Your task to perform on an android device: Search for Mexican restaurants on Maps Image 0: 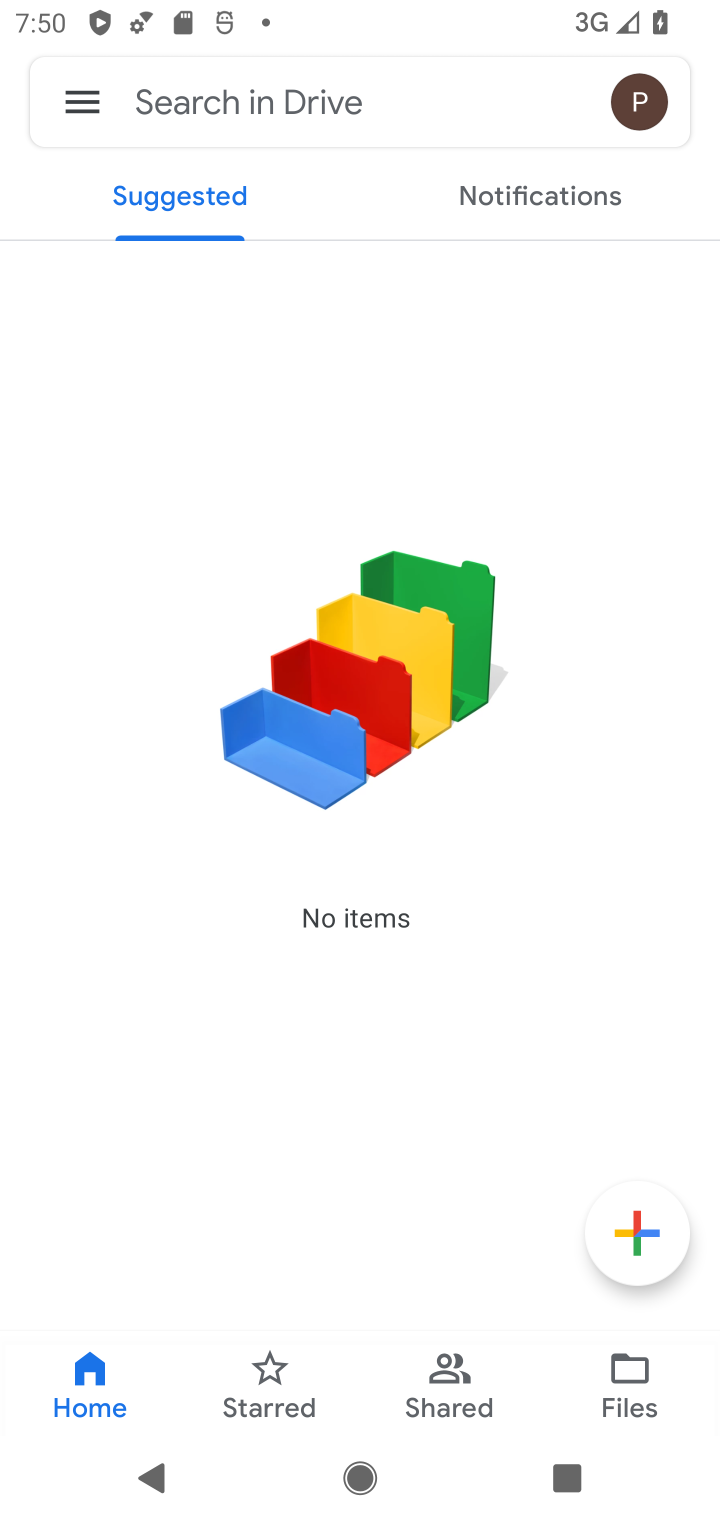
Step 0: press home button
Your task to perform on an android device: Search for Mexican restaurants on Maps Image 1: 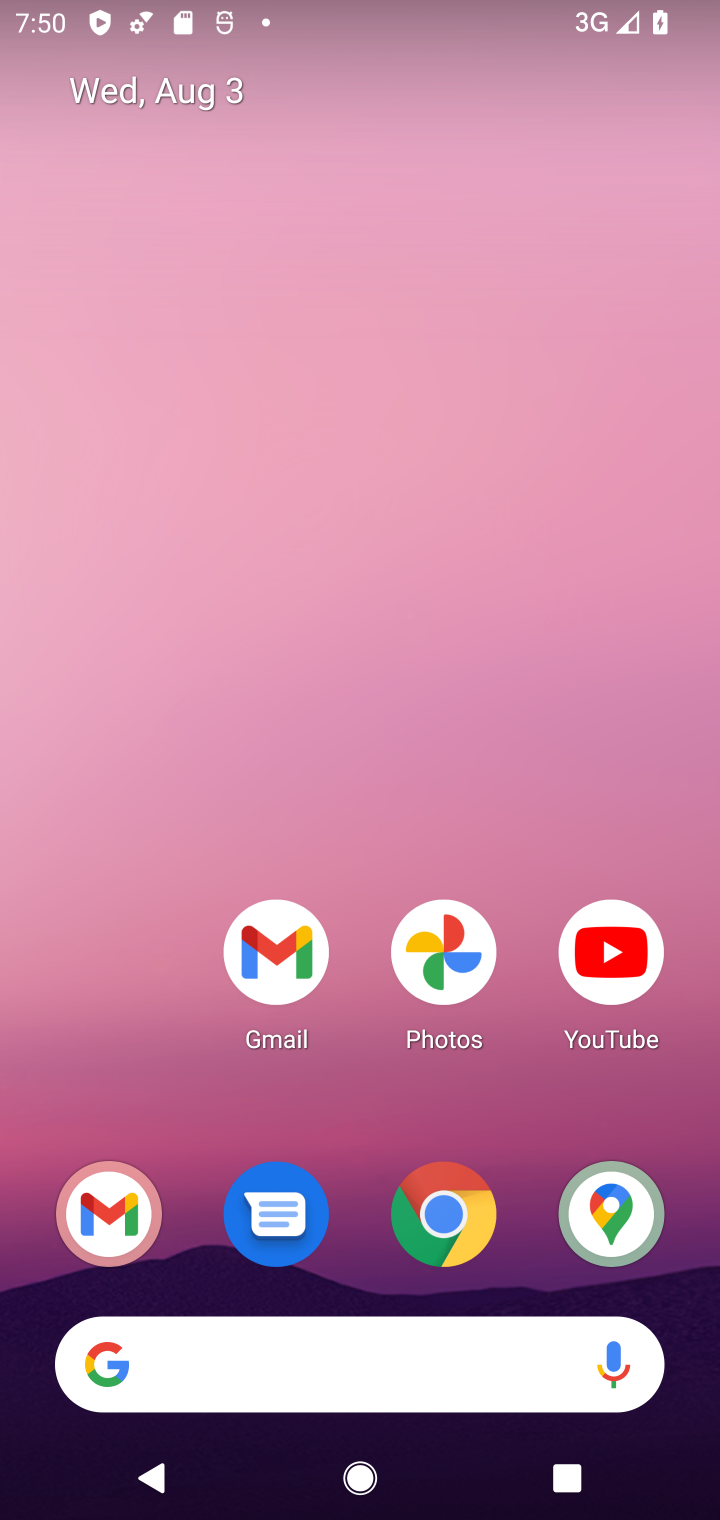
Step 1: drag from (136, 1084) to (253, 60)
Your task to perform on an android device: Search for Mexican restaurants on Maps Image 2: 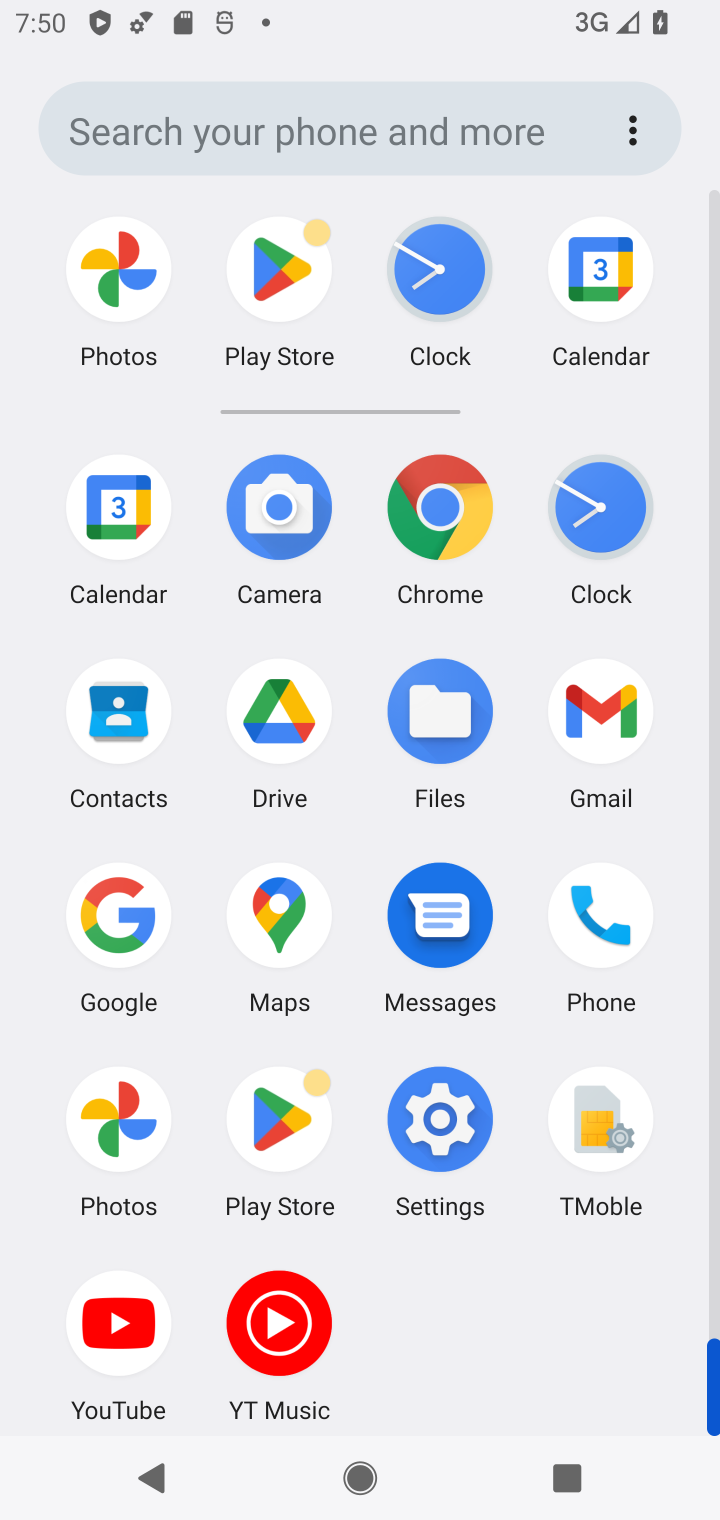
Step 2: click (292, 920)
Your task to perform on an android device: Search for Mexican restaurants on Maps Image 3: 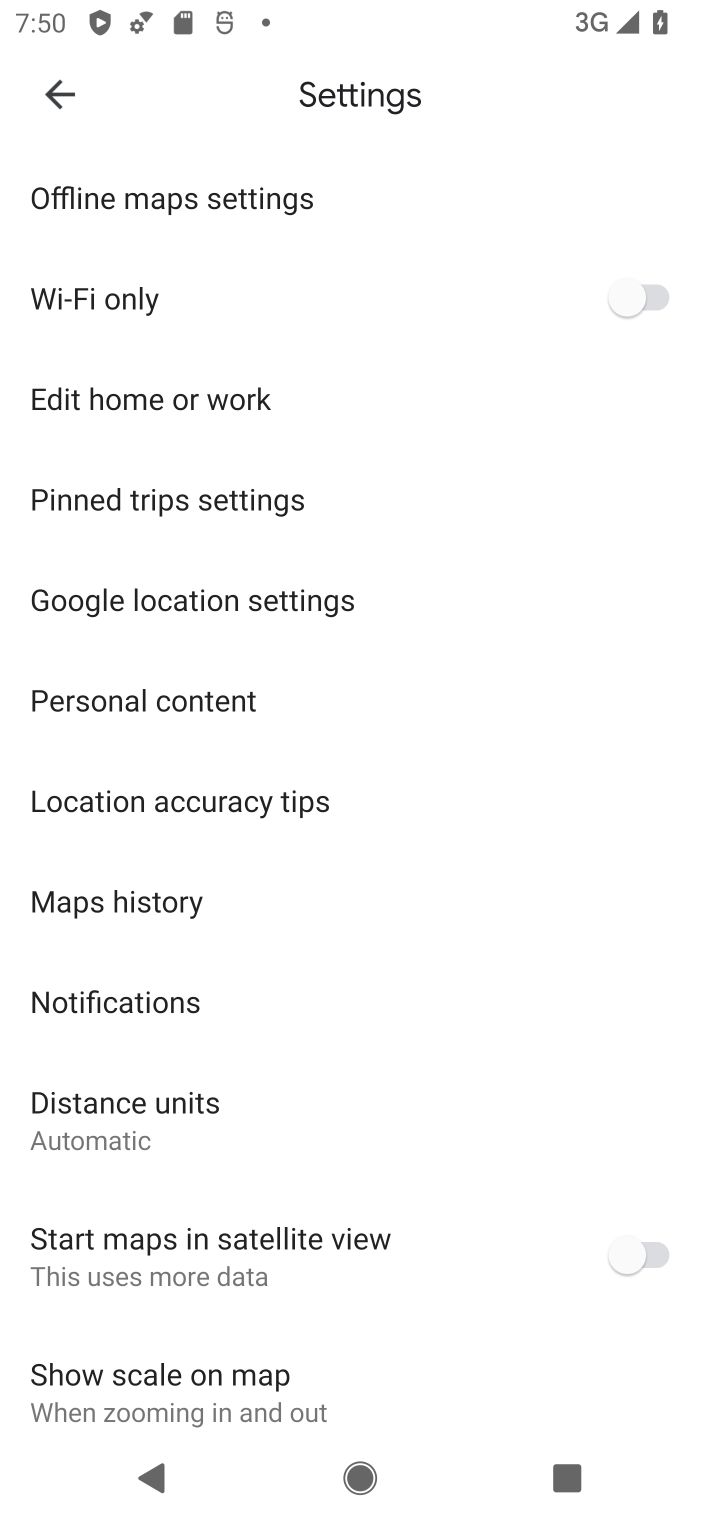
Step 3: click (74, 97)
Your task to perform on an android device: Search for Mexican restaurants on Maps Image 4: 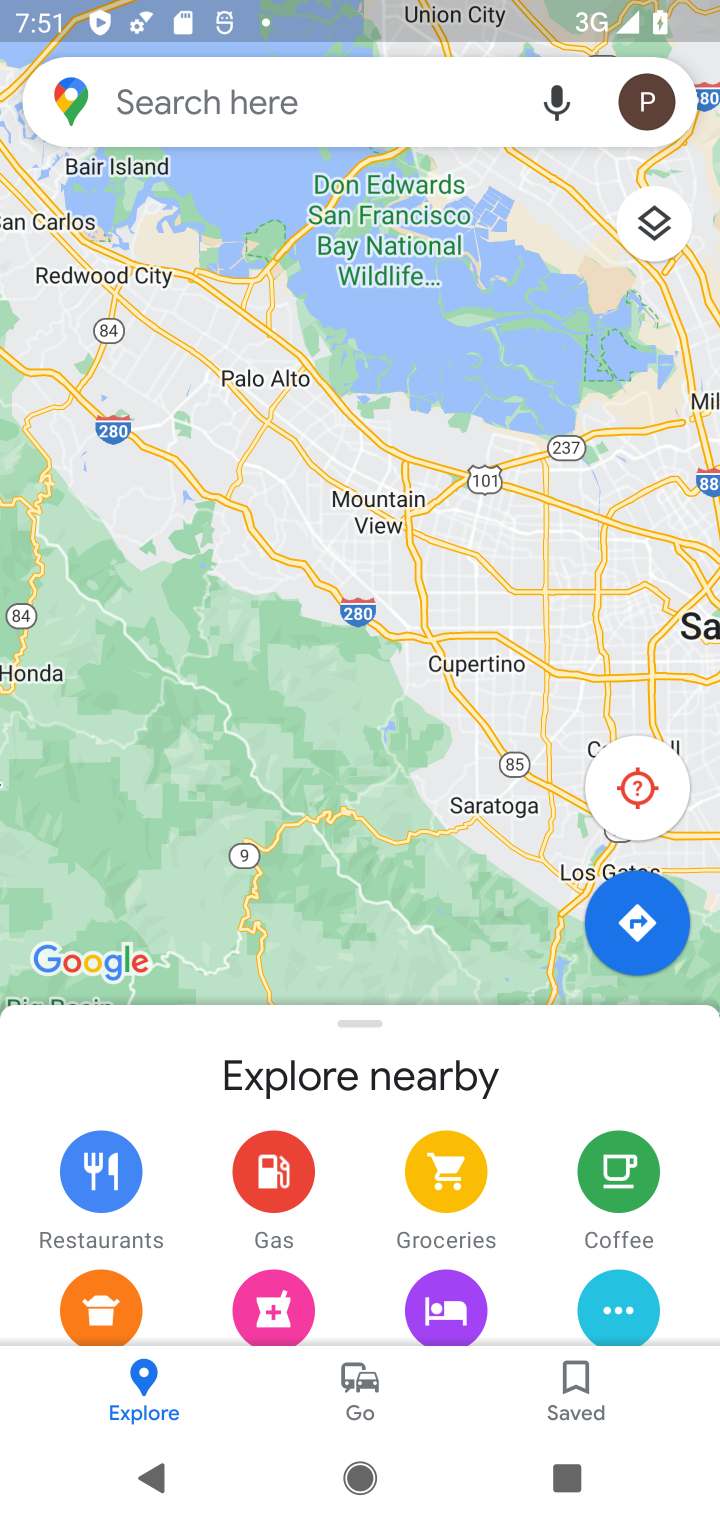
Step 4: click (239, 83)
Your task to perform on an android device: Search for Mexican restaurants on Maps Image 5: 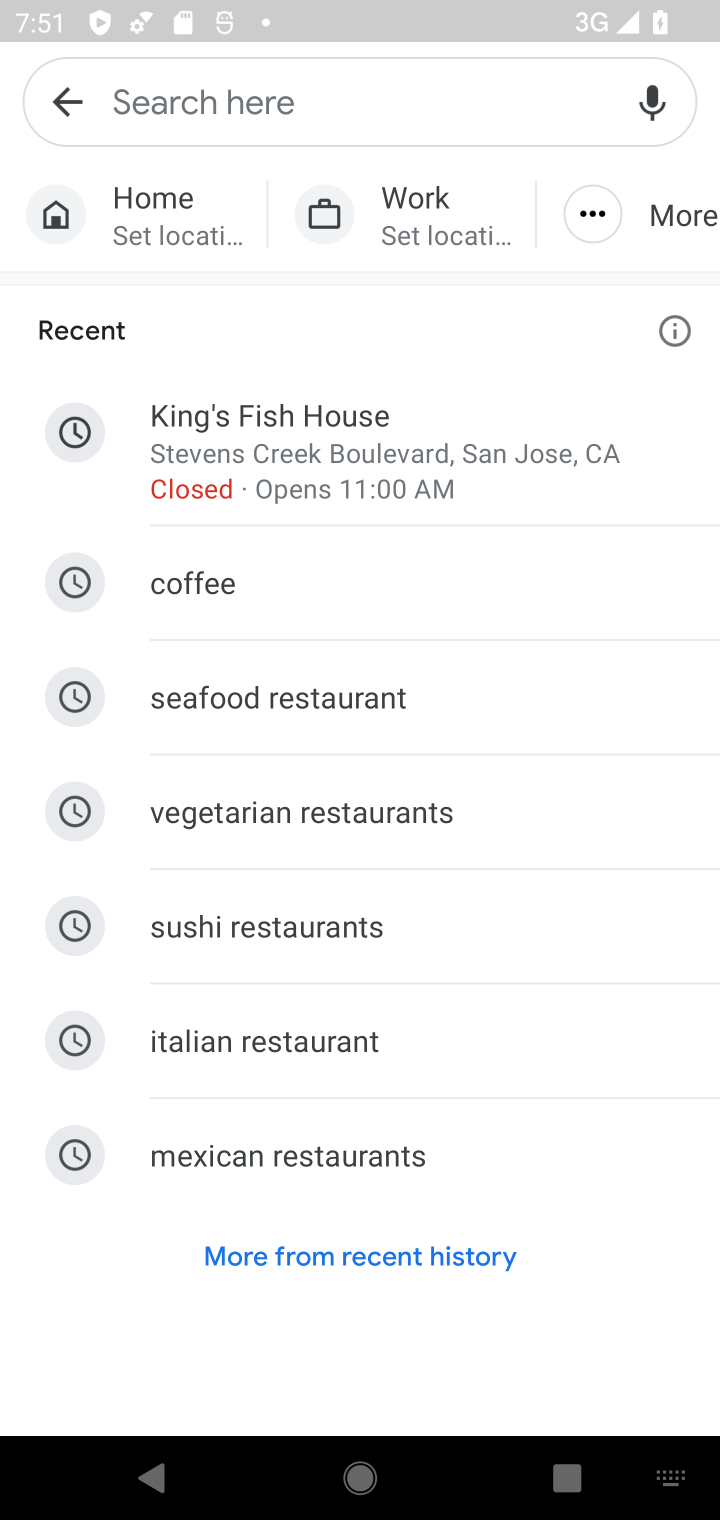
Step 5: click (281, 1181)
Your task to perform on an android device: Search for Mexican restaurants on Maps Image 6: 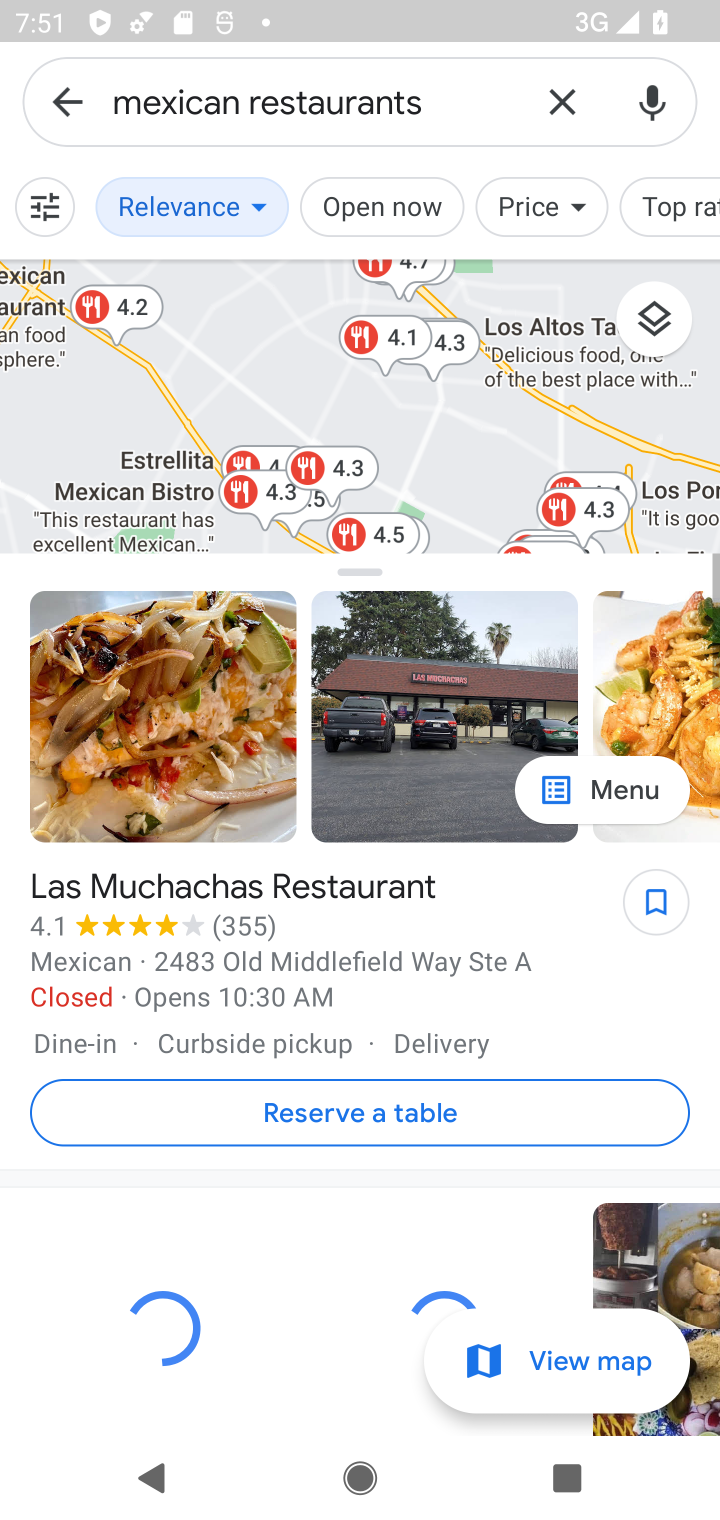
Step 6: task complete